Your task to perform on an android device: turn pop-ups on in chrome Image 0: 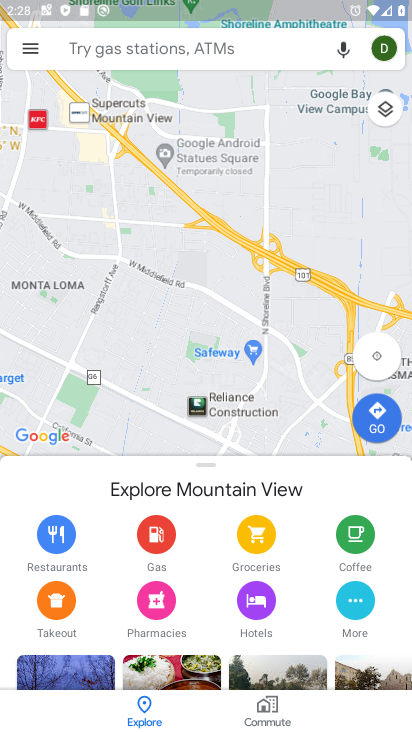
Step 0: press back button
Your task to perform on an android device: turn pop-ups on in chrome Image 1: 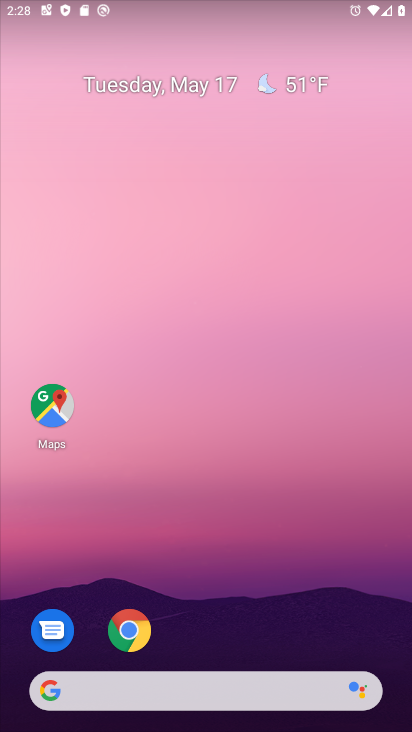
Step 1: click (139, 639)
Your task to perform on an android device: turn pop-ups on in chrome Image 2: 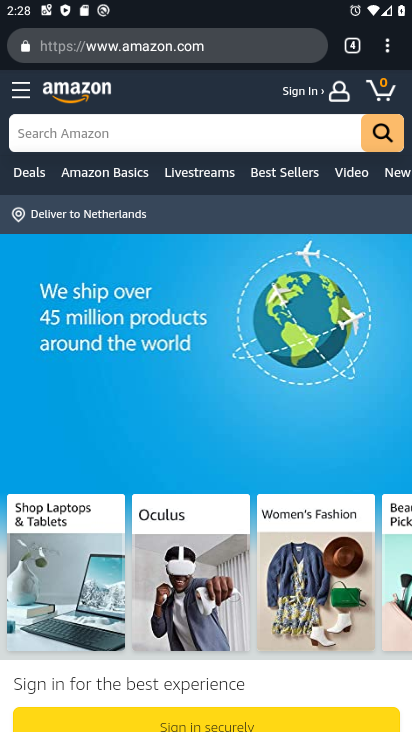
Step 2: drag from (390, 52) to (240, 541)
Your task to perform on an android device: turn pop-ups on in chrome Image 3: 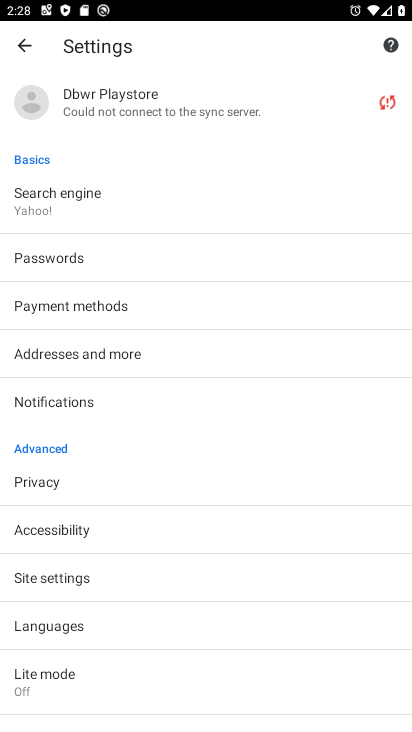
Step 3: click (42, 586)
Your task to perform on an android device: turn pop-ups on in chrome Image 4: 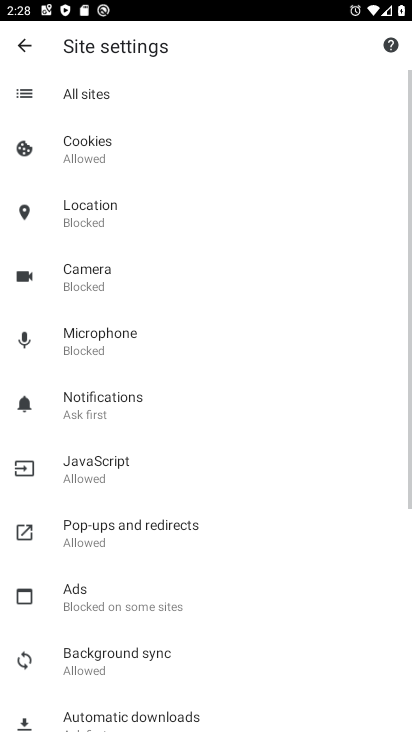
Step 4: click (86, 537)
Your task to perform on an android device: turn pop-ups on in chrome Image 5: 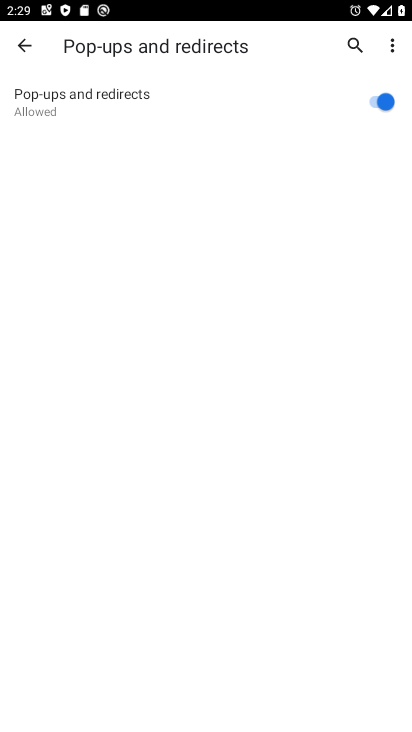
Step 5: task complete